Your task to perform on an android device: move an email to a new category in the gmail app Image 0: 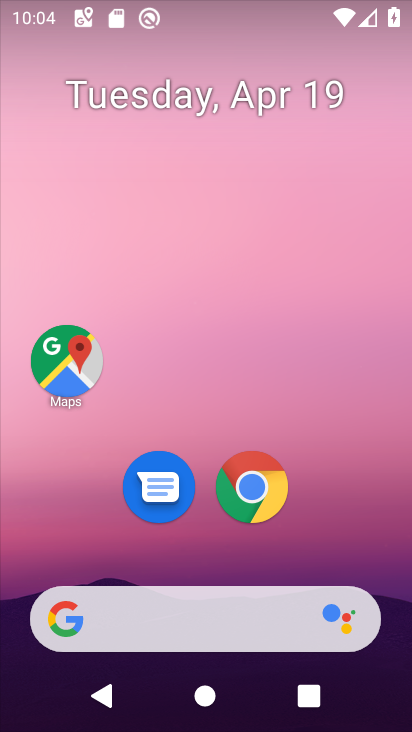
Step 0: drag from (331, 558) to (253, 5)
Your task to perform on an android device: move an email to a new category in the gmail app Image 1: 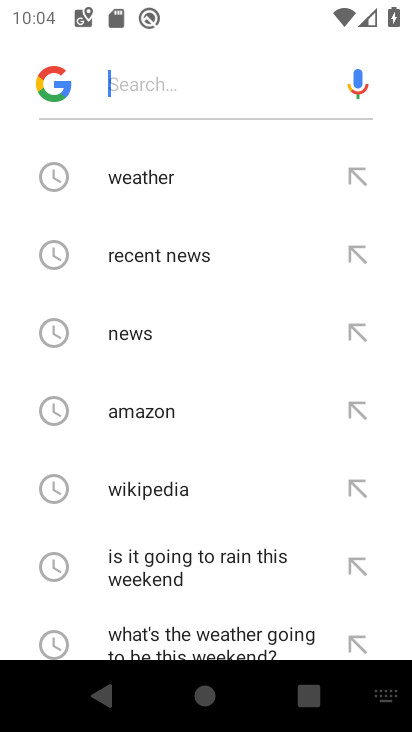
Step 1: press back button
Your task to perform on an android device: move an email to a new category in the gmail app Image 2: 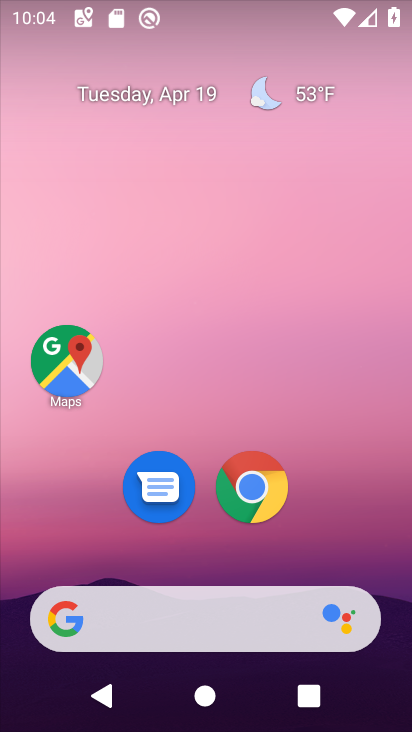
Step 2: drag from (339, 531) to (252, 3)
Your task to perform on an android device: move an email to a new category in the gmail app Image 3: 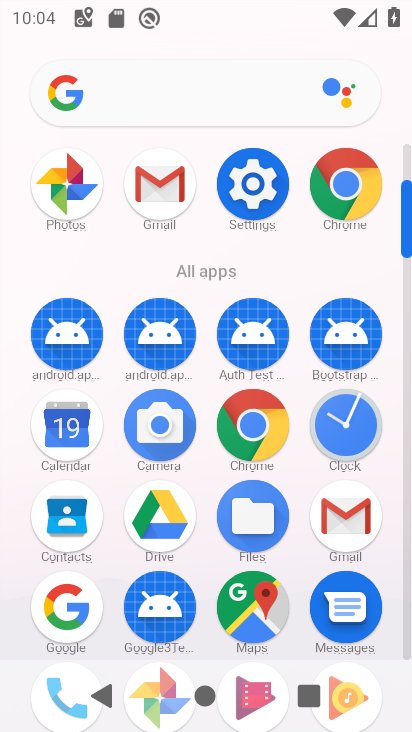
Step 3: click (348, 513)
Your task to perform on an android device: move an email to a new category in the gmail app Image 4: 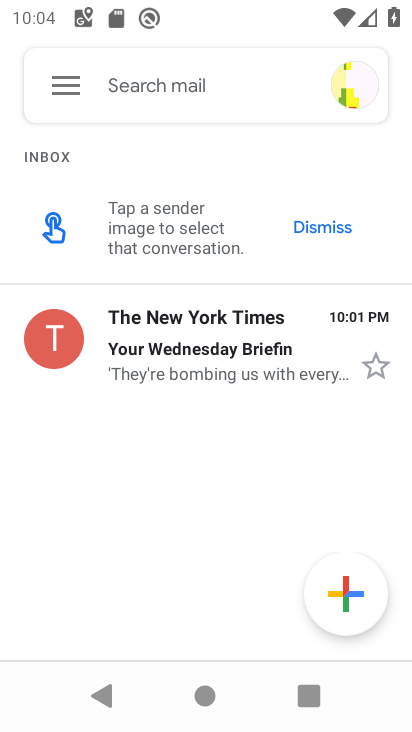
Step 4: click (210, 317)
Your task to perform on an android device: move an email to a new category in the gmail app Image 5: 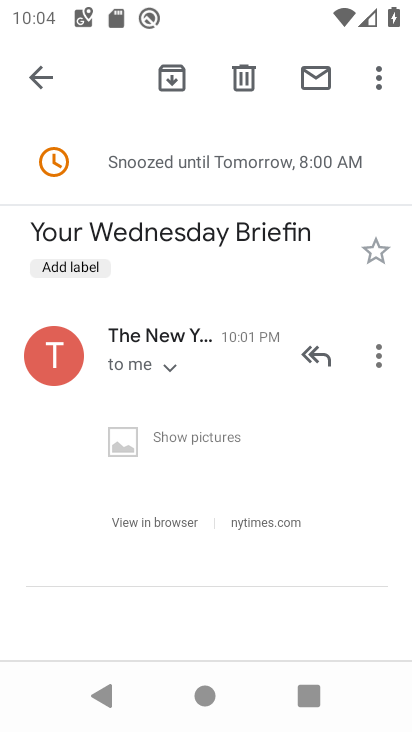
Step 5: click (376, 160)
Your task to perform on an android device: move an email to a new category in the gmail app Image 6: 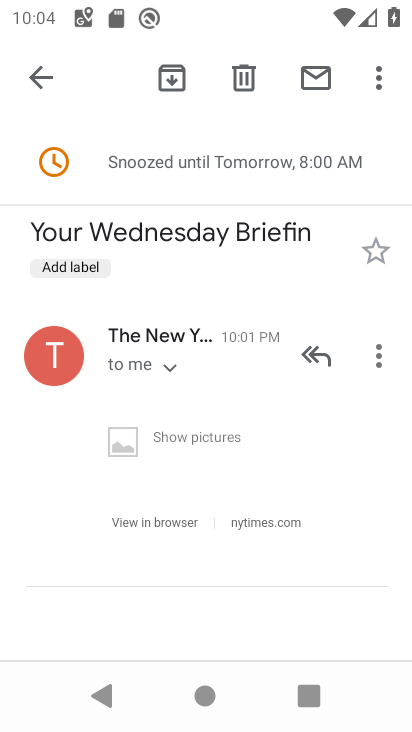
Step 6: click (372, 243)
Your task to perform on an android device: move an email to a new category in the gmail app Image 7: 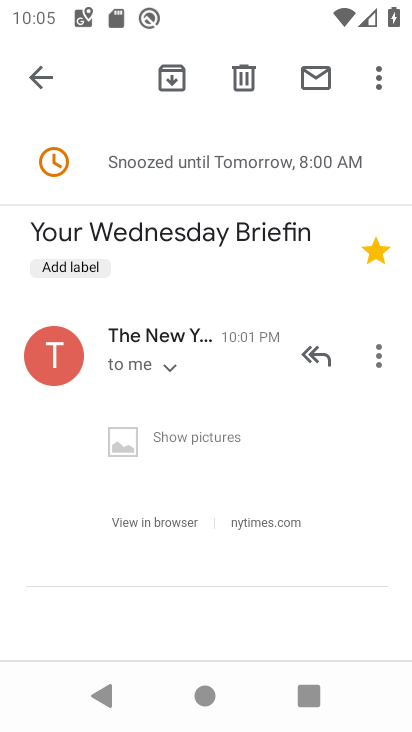
Step 7: task complete